Your task to perform on an android device: change alarm snooze length Image 0: 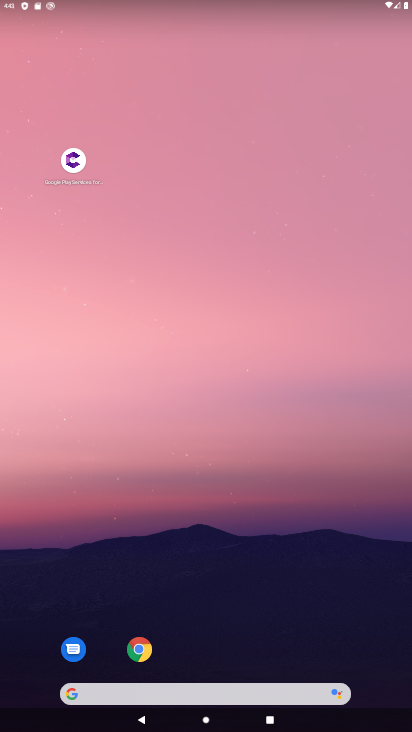
Step 0: drag from (202, 270) to (225, 159)
Your task to perform on an android device: change alarm snooze length Image 1: 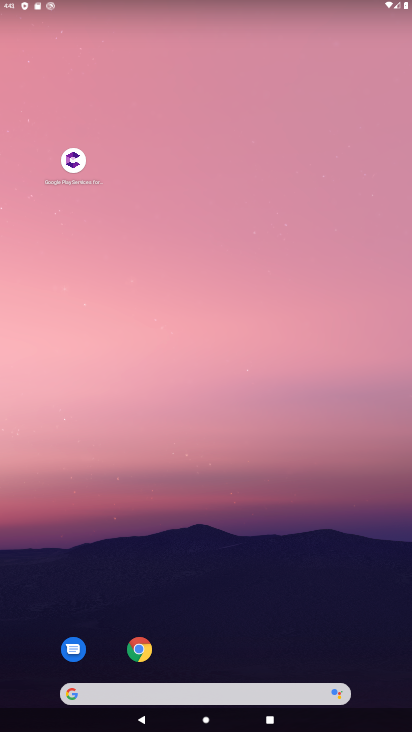
Step 1: drag from (165, 257) to (172, 165)
Your task to perform on an android device: change alarm snooze length Image 2: 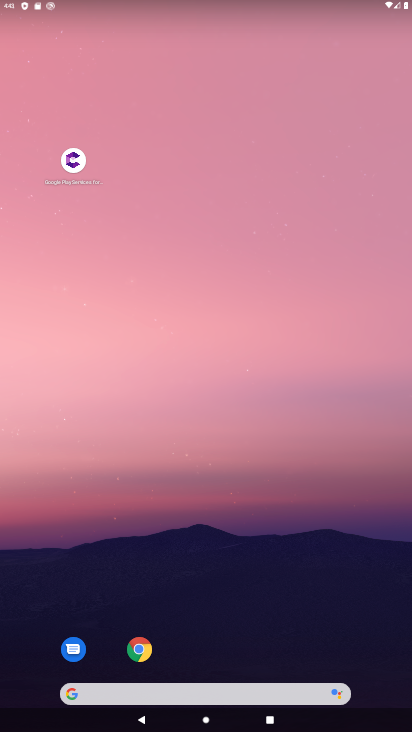
Step 2: drag from (166, 613) to (201, 46)
Your task to perform on an android device: change alarm snooze length Image 3: 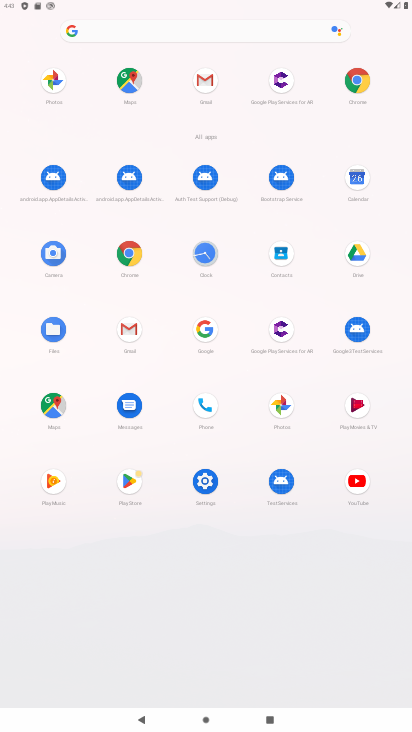
Step 3: click (205, 259)
Your task to perform on an android device: change alarm snooze length Image 4: 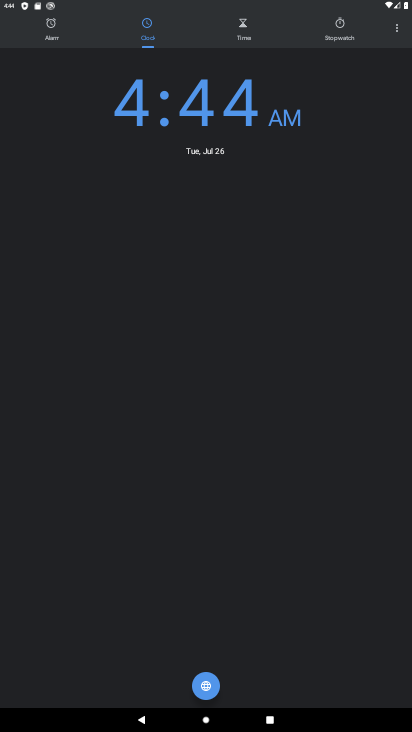
Step 4: click (400, 33)
Your task to perform on an android device: change alarm snooze length Image 5: 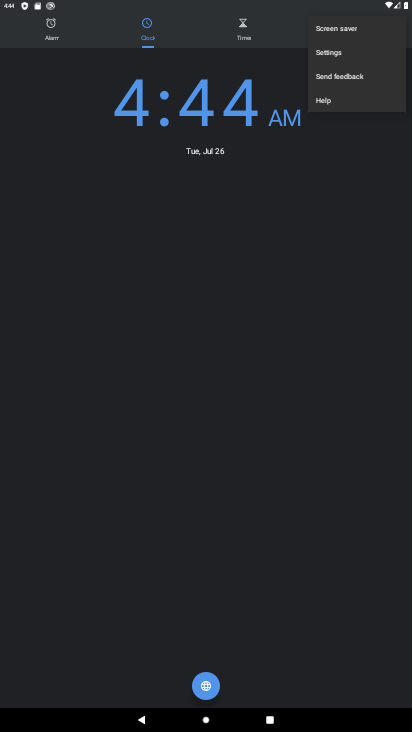
Step 5: click (332, 57)
Your task to perform on an android device: change alarm snooze length Image 6: 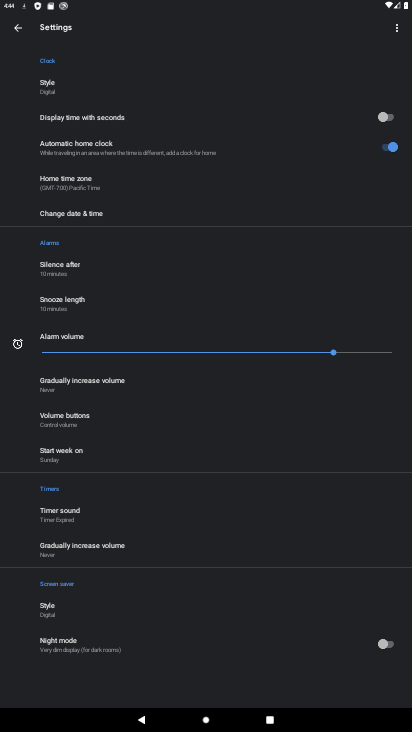
Step 6: click (65, 305)
Your task to perform on an android device: change alarm snooze length Image 7: 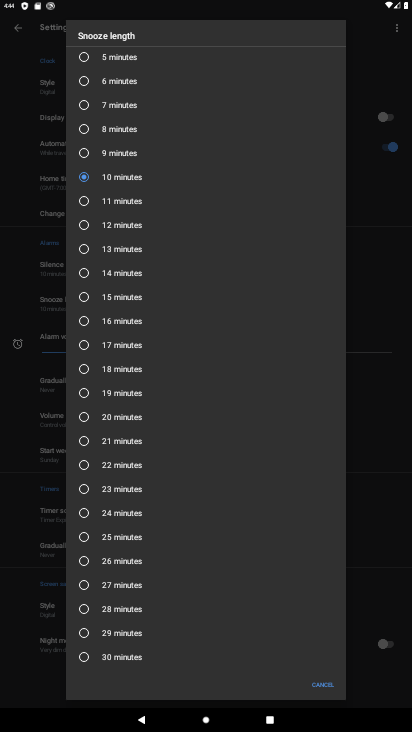
Step 7: click (84, 277)
Your task to perform on an android device: change alarm snooze length Image 8: 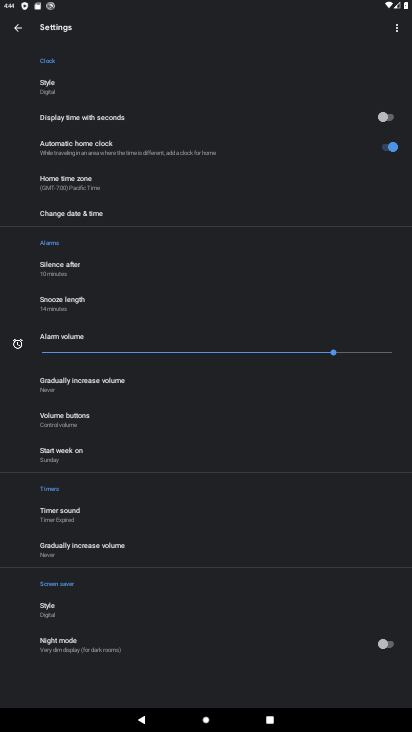
Step 8: task complete